Your task to perform on an android device: open app "Facebook Messenger" Image 0: 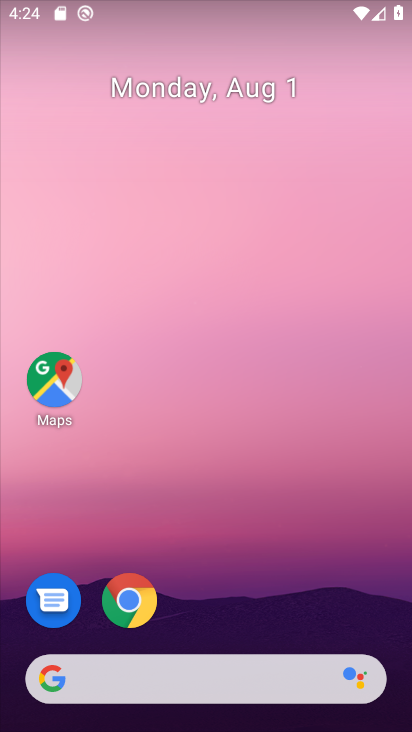
Step 0: drag from (313, 526) to (357, 81)
Your task to perform on an android device: open app "Facebook Messenger" Image 1: 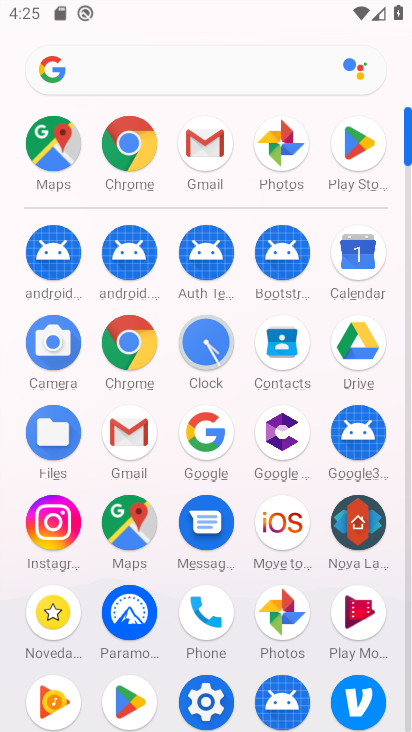
Step 1: click (354, 126)
Your task to perform on an android device: open app "Facebook Messenger" Image 2: 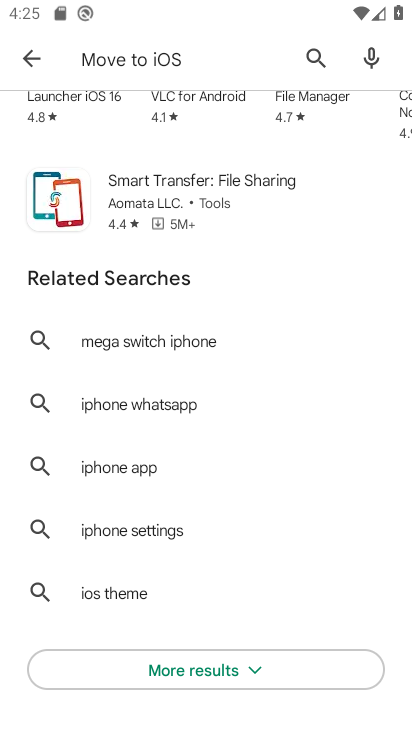
Step 2: click (288, 51)
Your task to perform on an android device: open app "Facebook Messenger" Image 3: 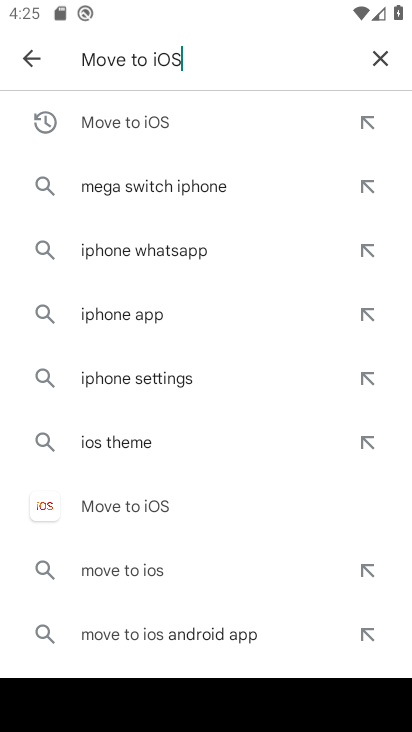
Step 3: click (388, 59)
Your task to perform on an android device: open app "Facebook Messenger" Image 4: 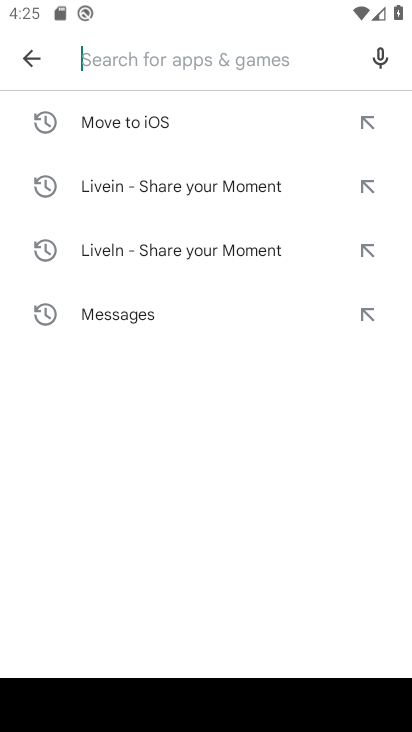
Step 4: type "Fa ebook Messenger"
Your task to perform on an android device: open app "Facebook Messenger" Image 5: 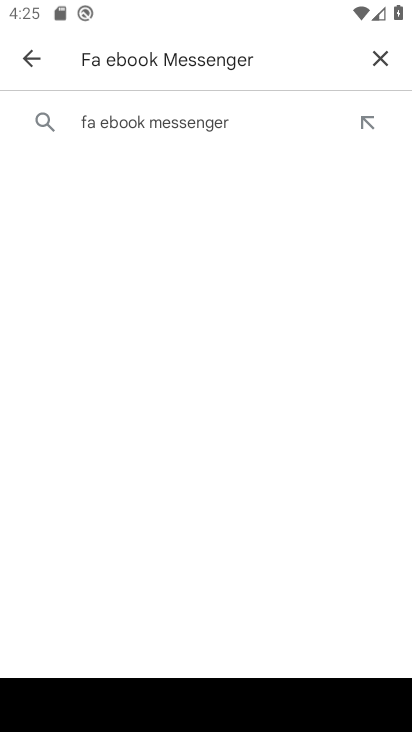
Step 5: press enter
Your task to perform on an android device: open app "Facebook Messenger" Image 6: 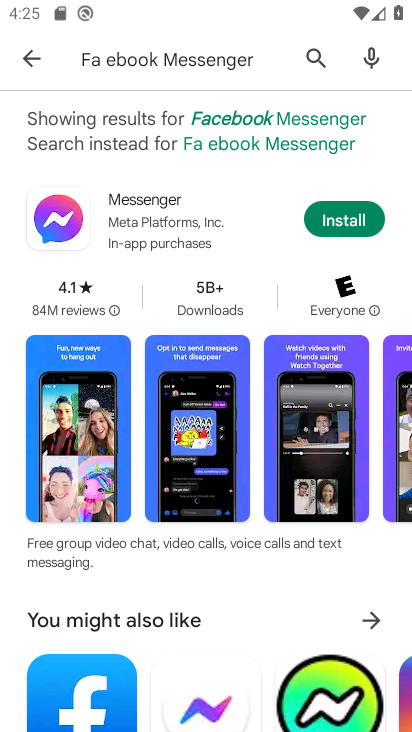
Step 6: click (136, 204)
Your task to perform on an android device: open app "Facebook Messenger" Image 7: 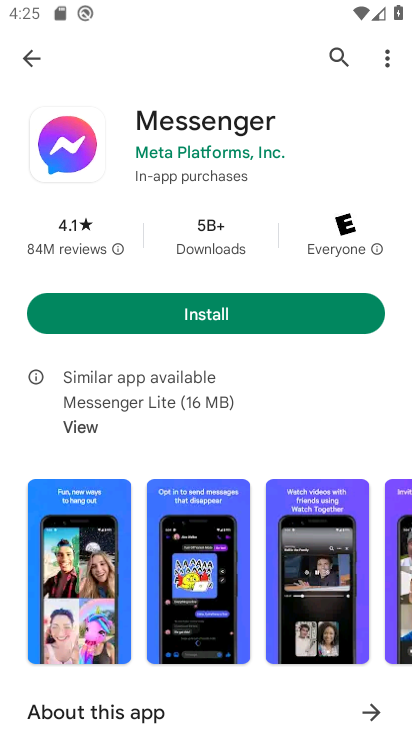
Step 7: click (284, 305)
Your task to perform on an android device: open app "Facebook Messenger" Image 8: 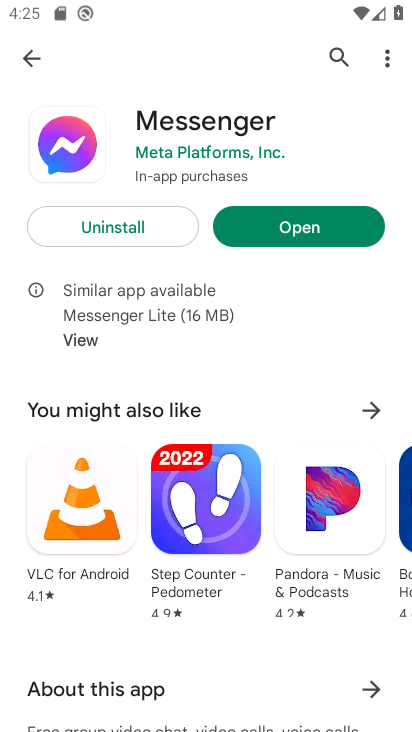
Step 8: click (316, 219)
Your task to perform on an android device: open app "Facebook Messenger" Image 9: 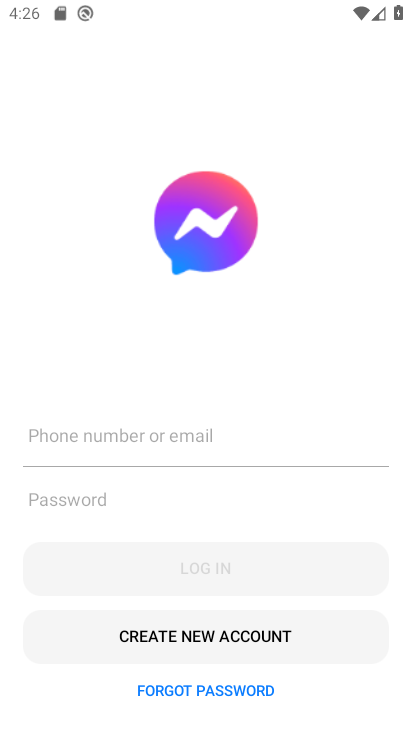
Step 9: task complete